Your task to perform on an android device: Open sound settings Image 0: 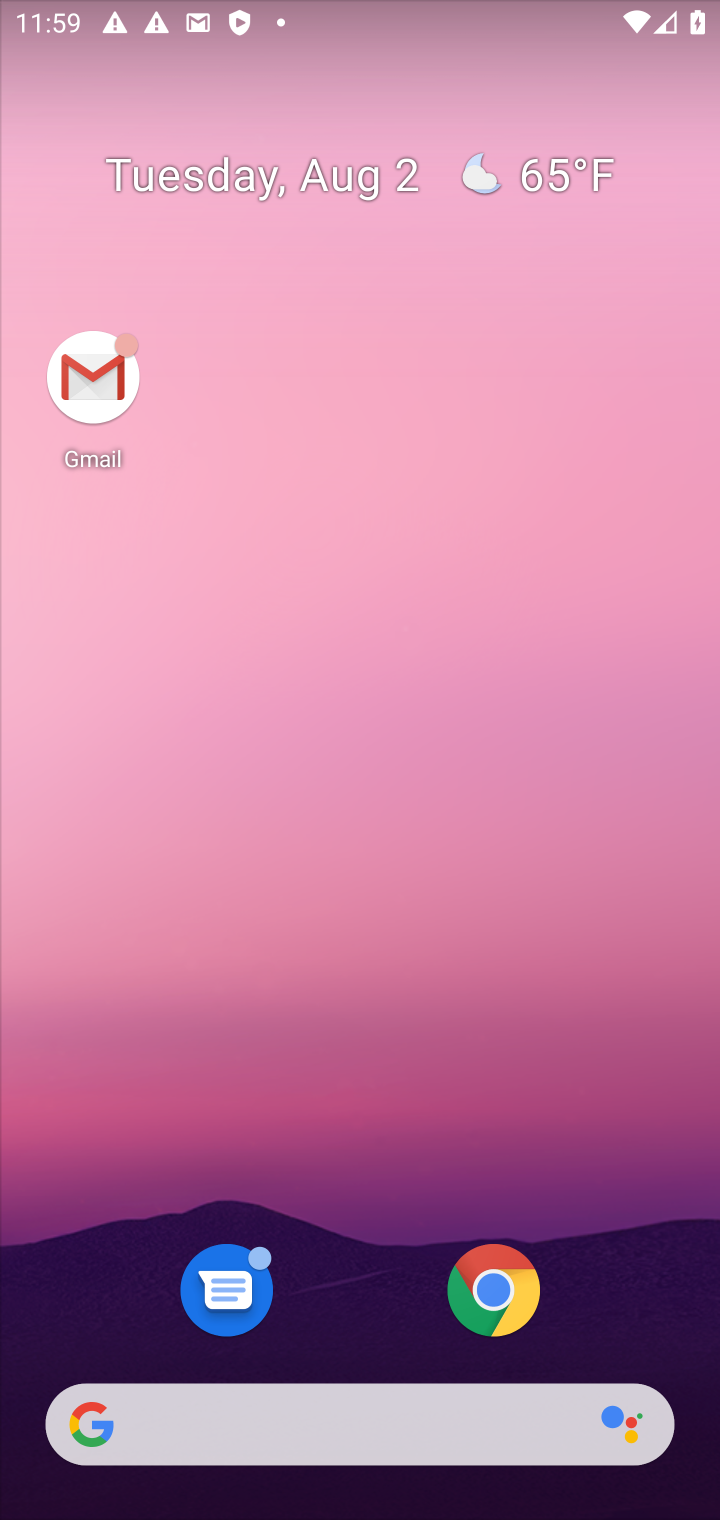
Step 0: drag from (343, 1163) to (401, 310)
Your task to perform on an android device: Open sound settings Image 1: 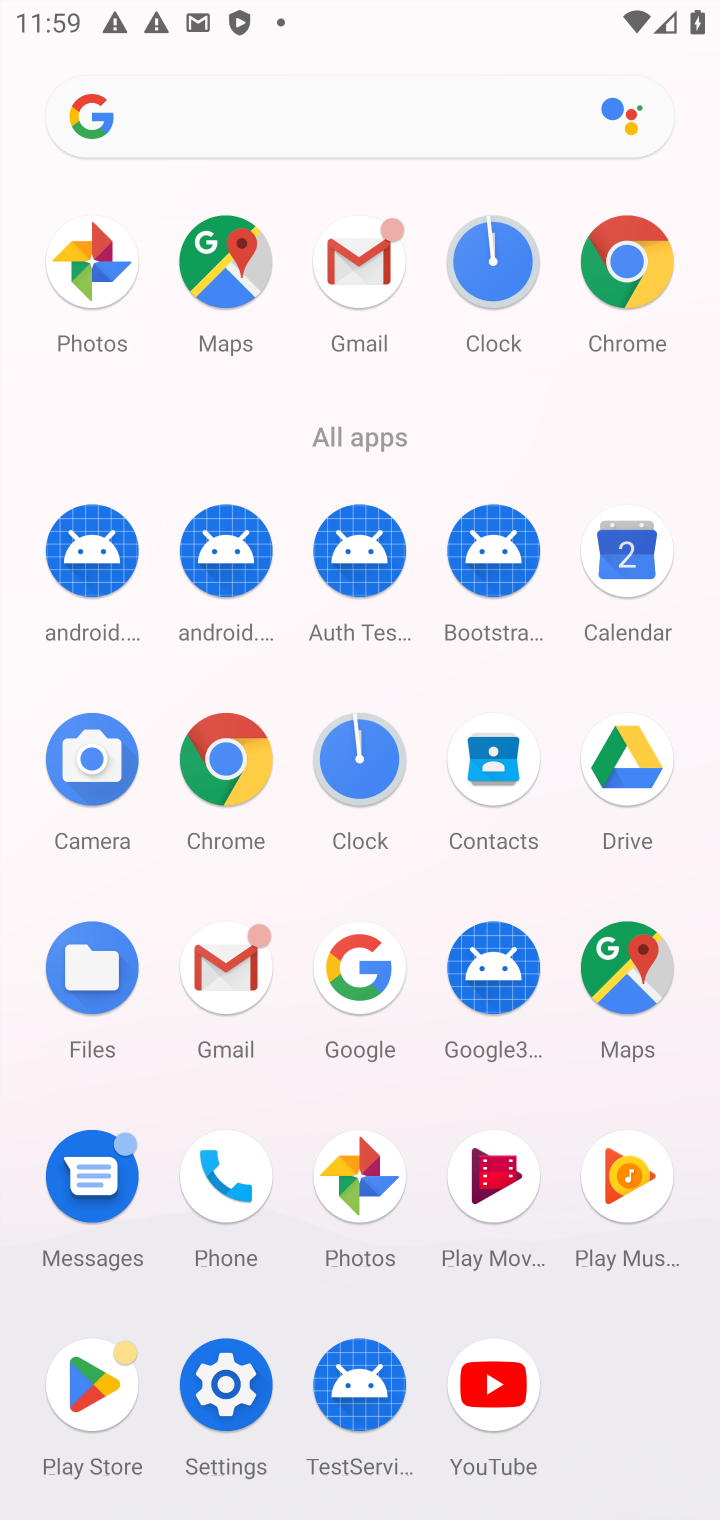
Step 1: drag from (219, 1396) to (358, 387)
Your task to perform on an android device: Open sound settings Image 2: 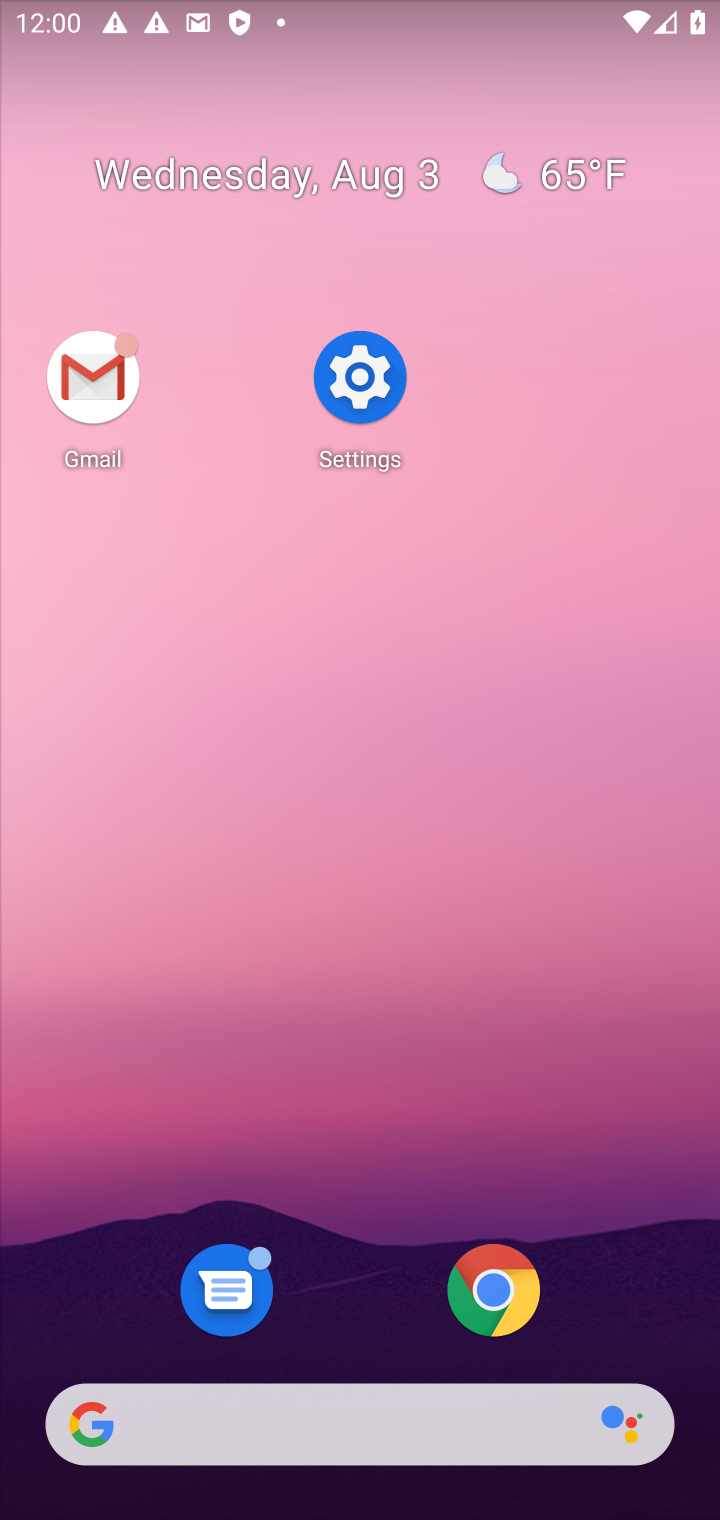
Step 2: click (356, 386)
Your task to perform on an android device: Open sound settings Image 3: 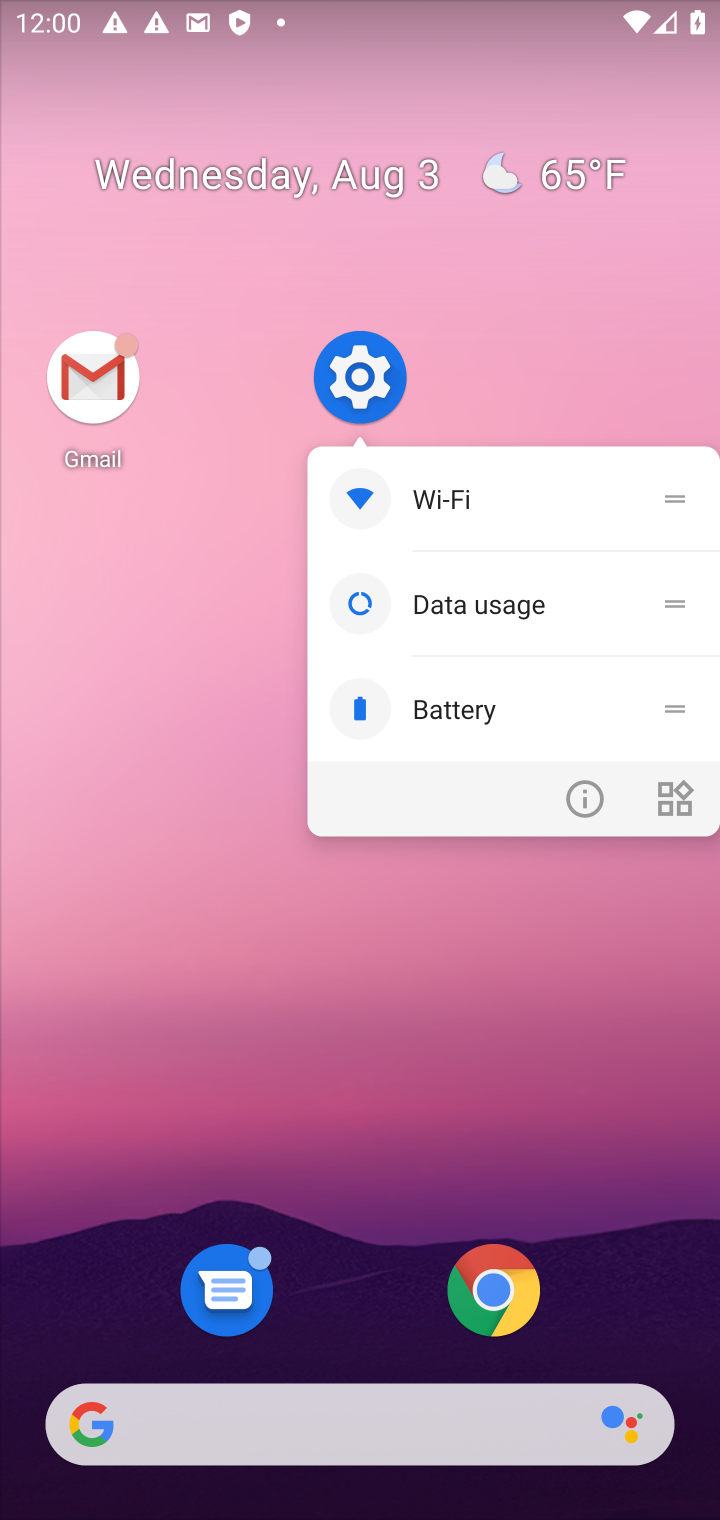
Step 3: click (356, 388)
Your task to perform on an android device: Open sound settings Image 4: 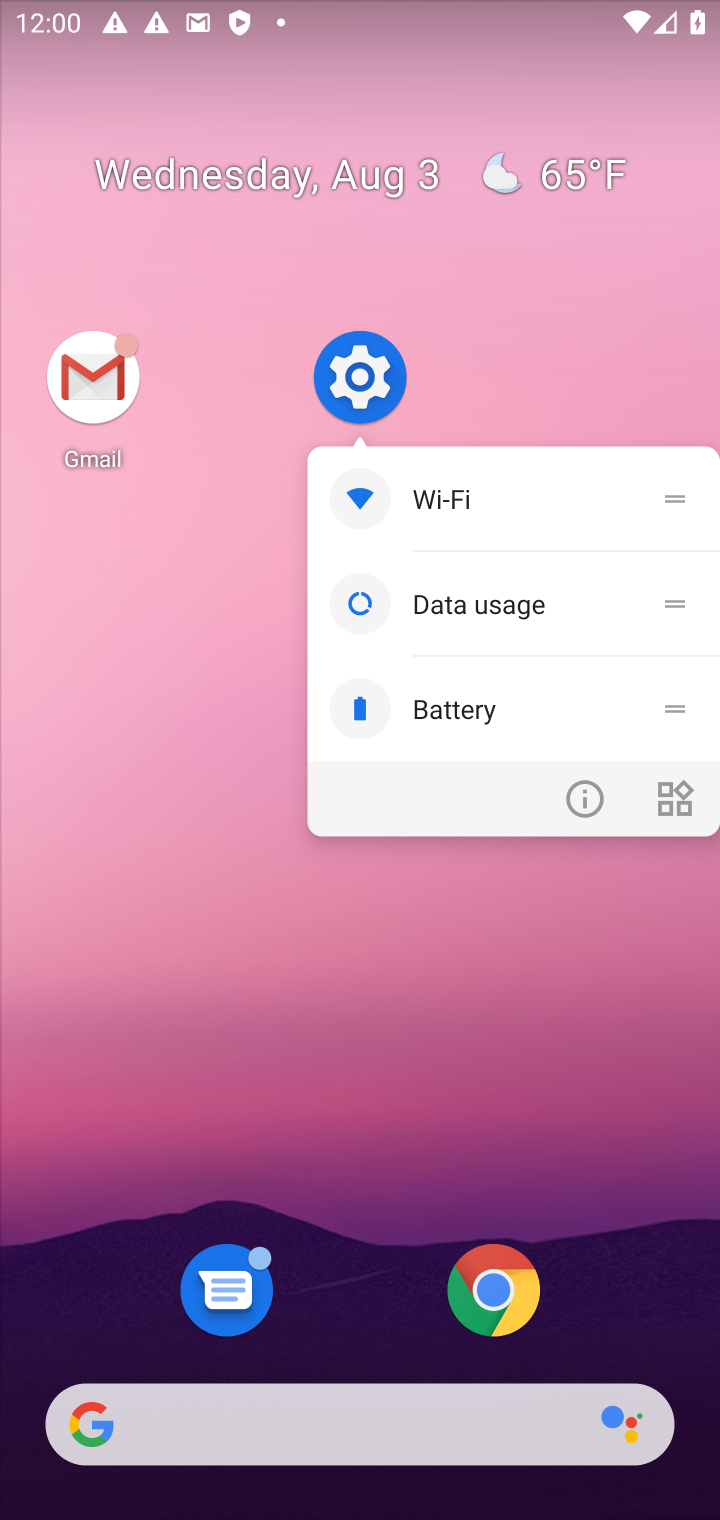
Step 4: click (356, 390)
Your task to perform on an android device: Open sound settings Image 5: 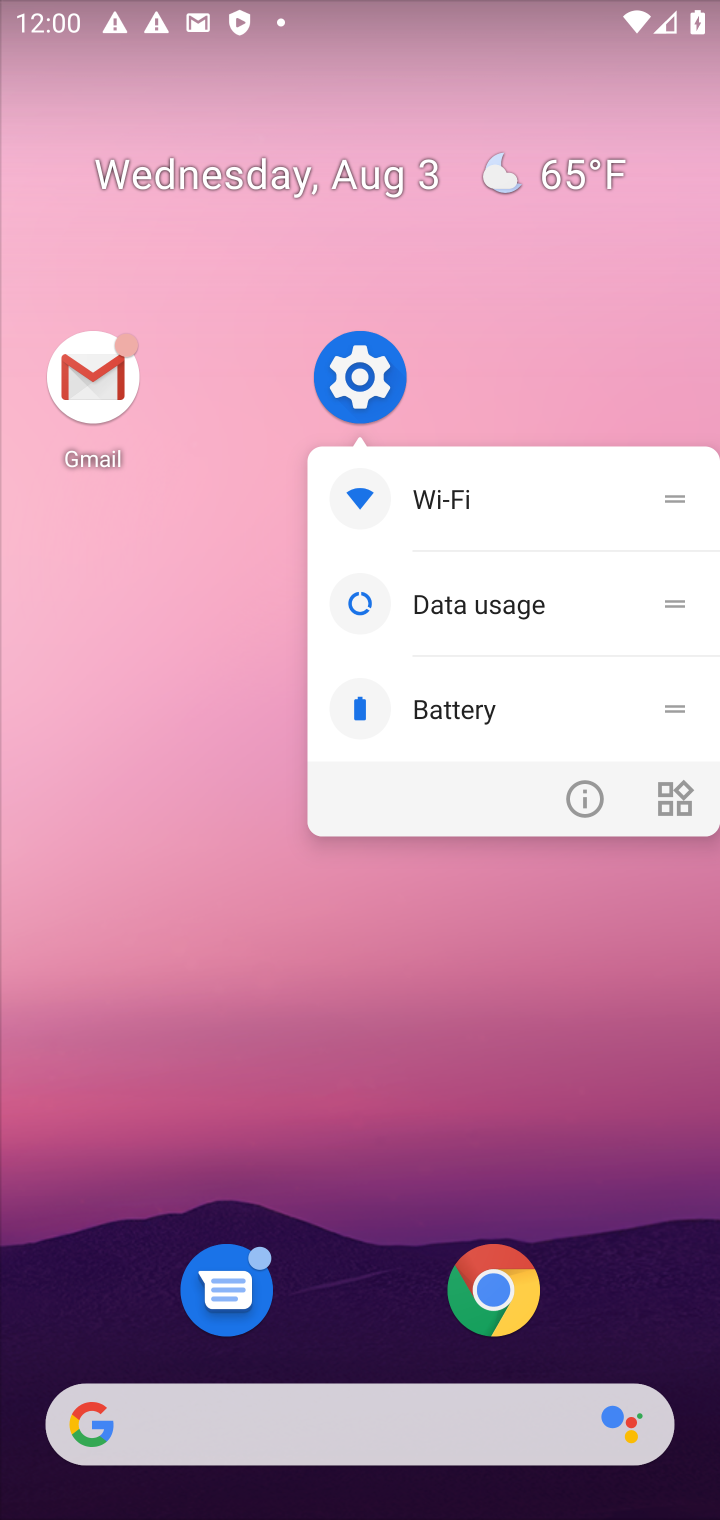
Step 5: click (356, 390)
Your task to perform on an android device: Open sound settings Image 6: 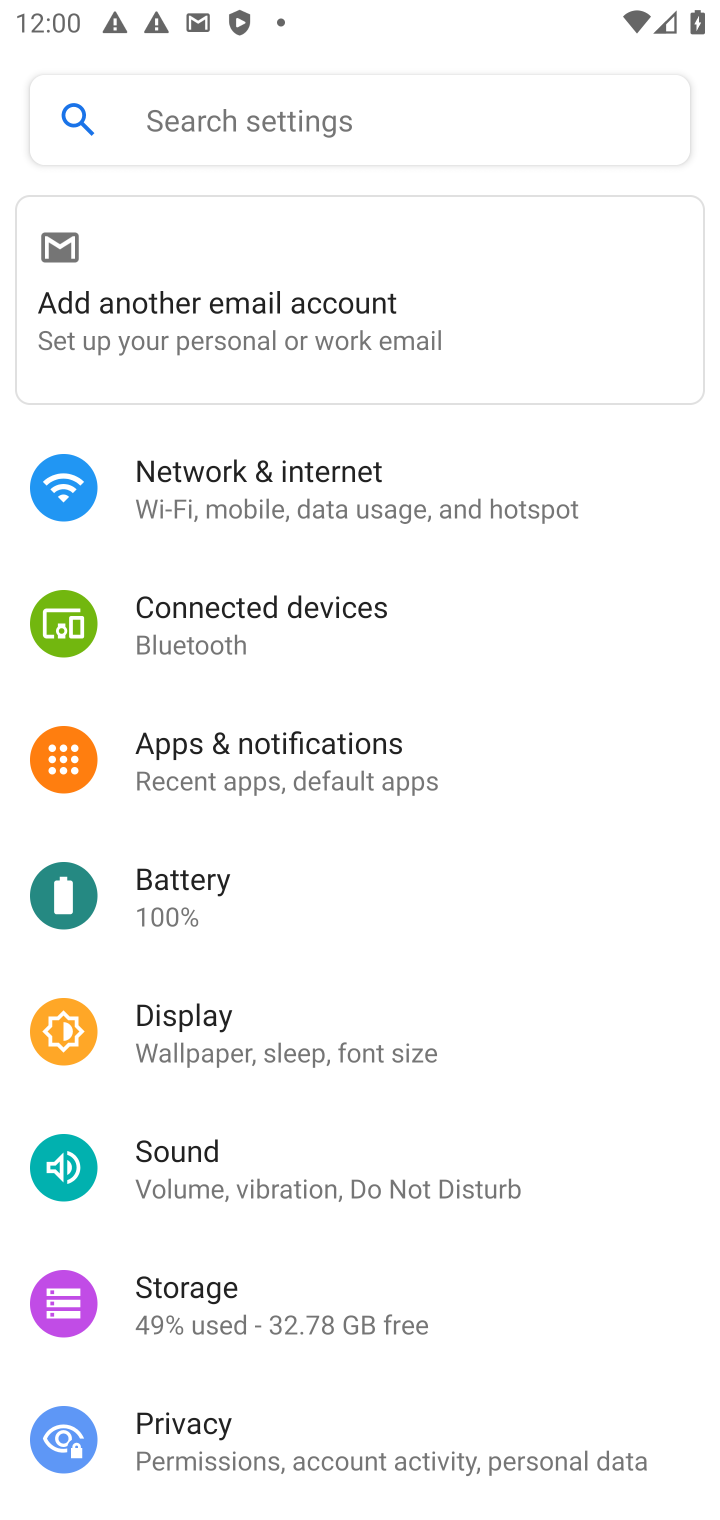
Step 6: click (339, 1194)
Your task to perform on an android device: Open sound settings Image 7: 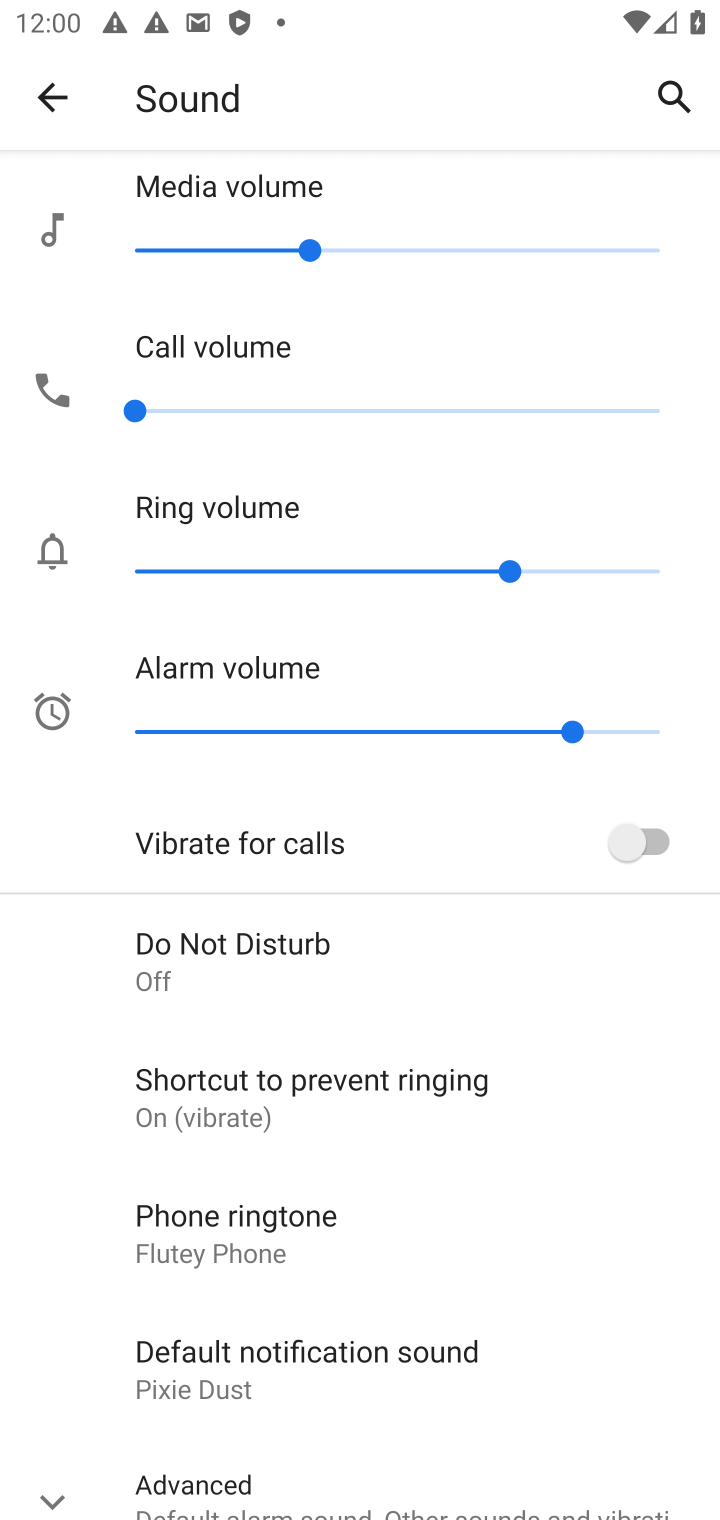
Step 7: task complete